Your task to perform on an android device: turn on priority inbox in the gmail app Image 0: 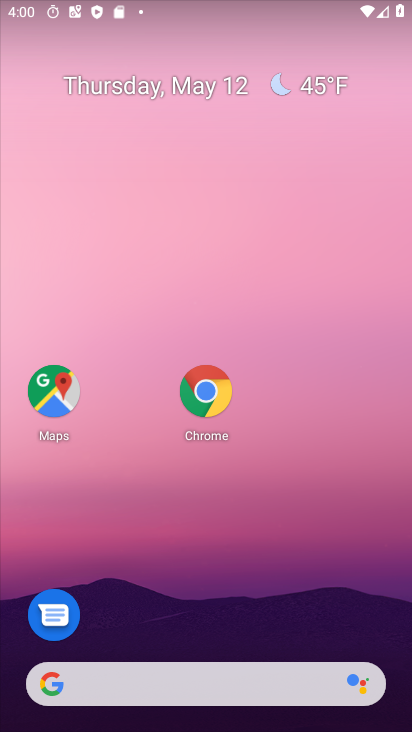
Step 0: drag from (202, 614) to (242, 91)
Your task to perform on an android device: turn on priority inbox in the gmail app Image 1: 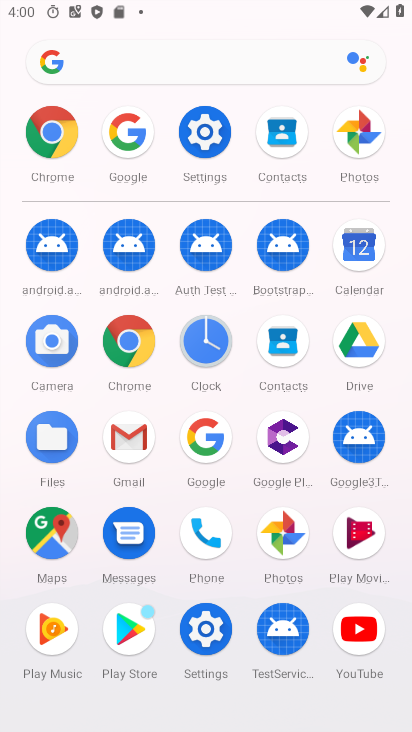
Step 1: click (130, 437)
Your task to perform on an android device: turn on priority inbox in the gmail app Image 2: 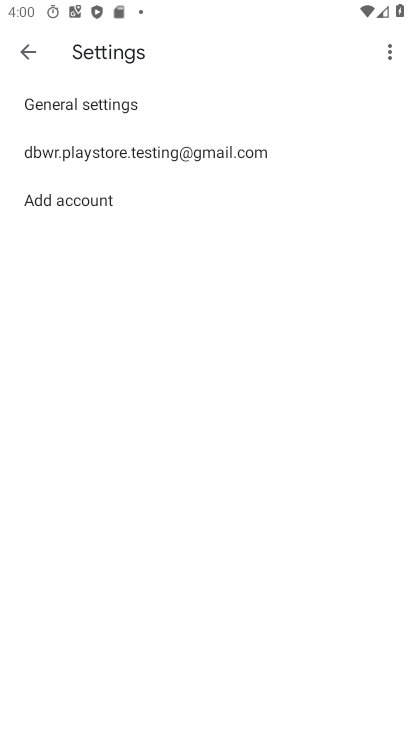
Step 2: click (119, 154)
Your task to perform on an android device: turn on priority inbox in the gmail app Image 3: 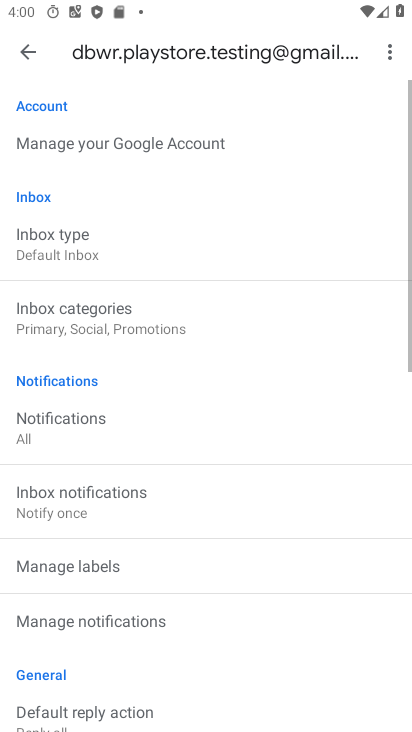
Step 3: drag from (190, 571) to (186, 653)
Your task to perform on an android device: turn on priority inbox in the gmail app Image 4: 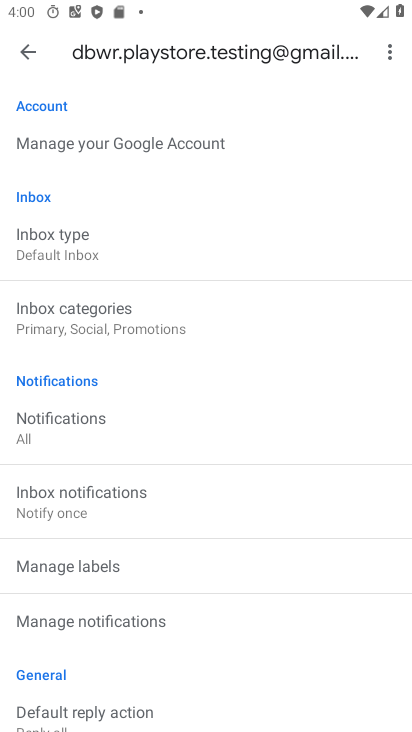
Step 4: drag from (176, 580) to (176, 528)
Your task to perform on an android device: turn on priority inbox in the gmail app Image 5: 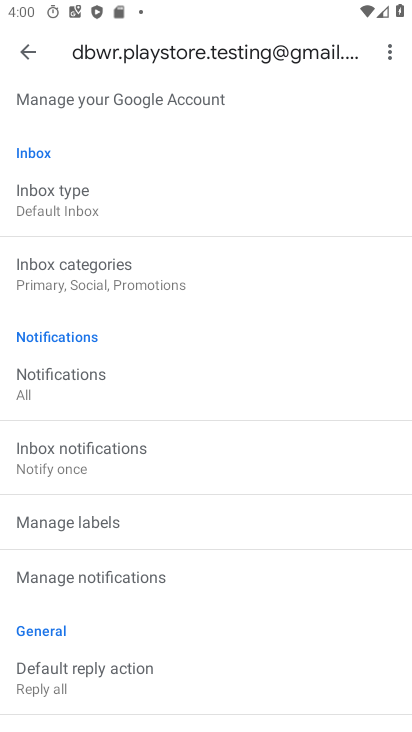
Step 5: click (63, 212)
Your task to perform on an android device: turn on priority inbox in the gmail app Image 6: 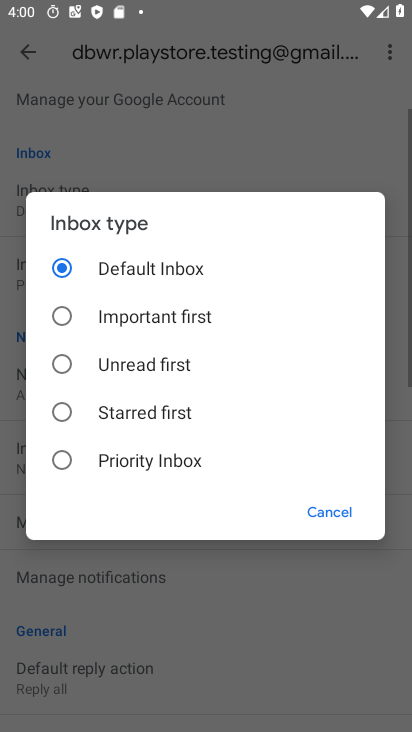
Step 6: click (58, 470)
Your task to perform on an android device: turn on priority inbox in the gmail app Image 7: 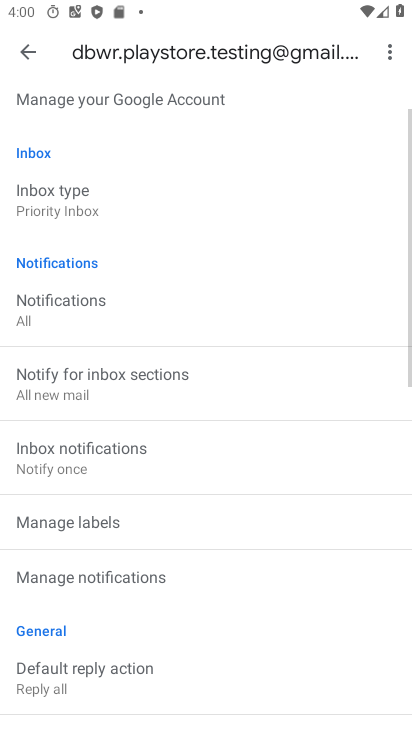
Step 7: task complete